Your task to perform on an android device: turn off airplane mode Image 0: 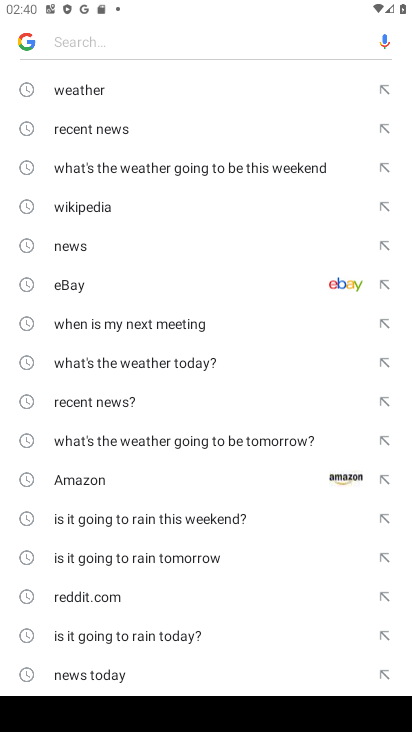
Step 0: press back button
Your task to perform on an android device: turn off airplane mode Image 1: 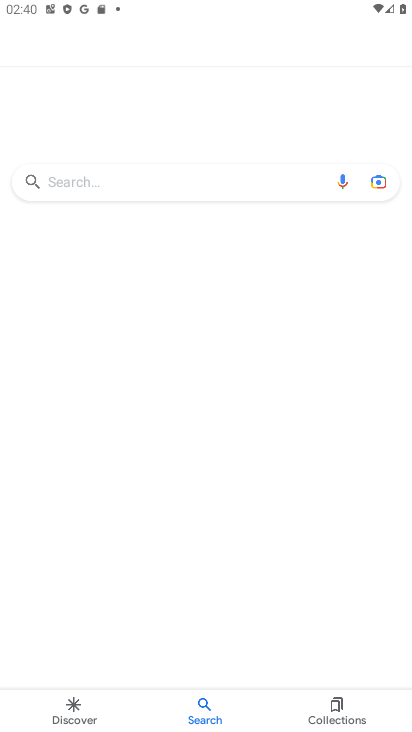
Step 1: press back button
Your task to perform on an android device: turn off airplane mode Image 2: 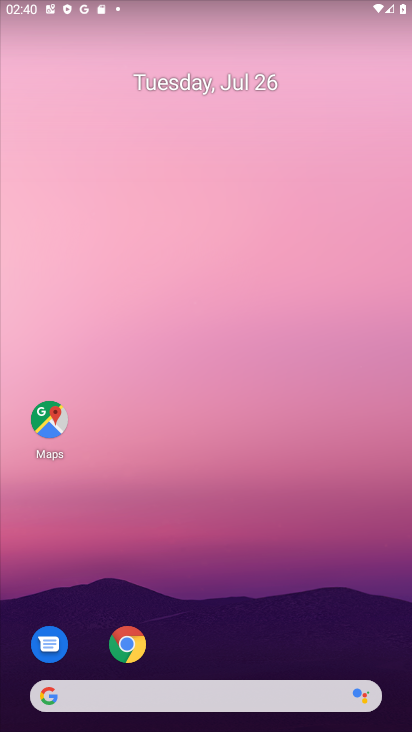
Step 2: drag from (193, 676) to (193, 96)
Your task to perform on an android device: turn off airplane mode Image 3: 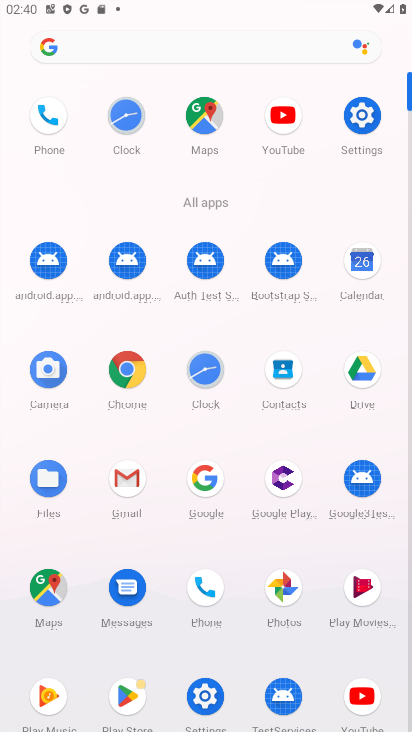
Step 3: click (352, 104)
Your task to perform on an android device: turn off airplane mode Image 4: 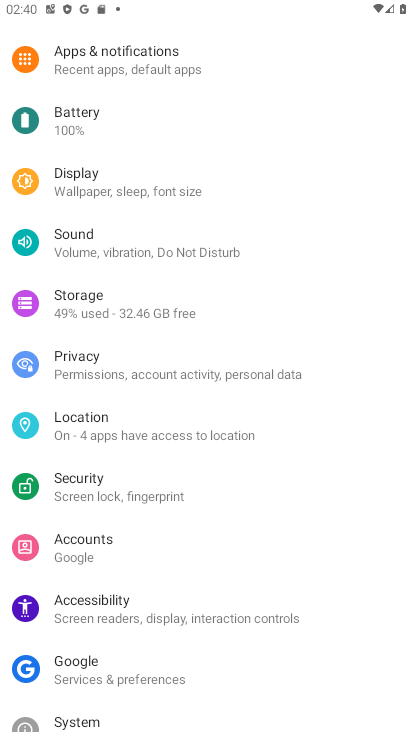
Step 4: drag from (163, 91) to (167, 563)
Your task to perform on an android device: turn off airplane mode Image 5: 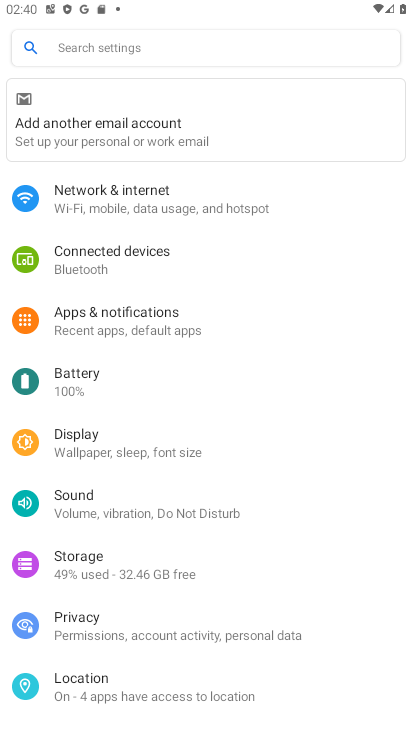
Step 5: click (101, 195)
Your task to perform on an android device: turn off airplane mode Image 6: 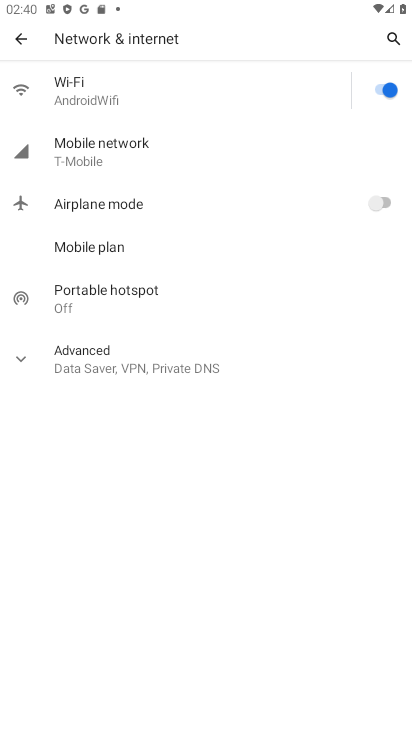
Step 6: task complete